Your task to perform on an android device: turn off location history Image 0: 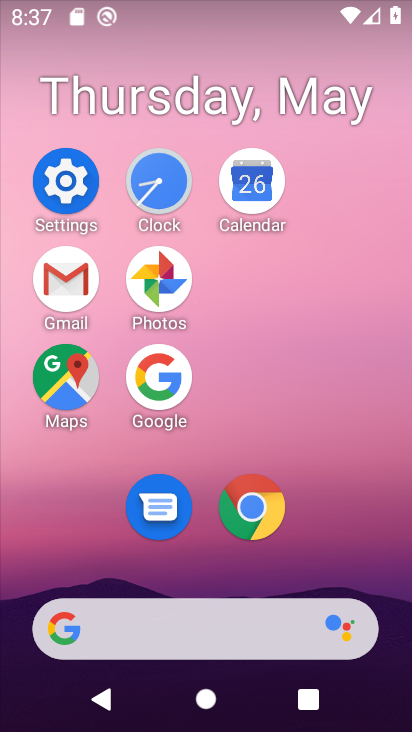
Step 0: click (66, 200)
Your task to perform on an android device: turn off location history Image 1: 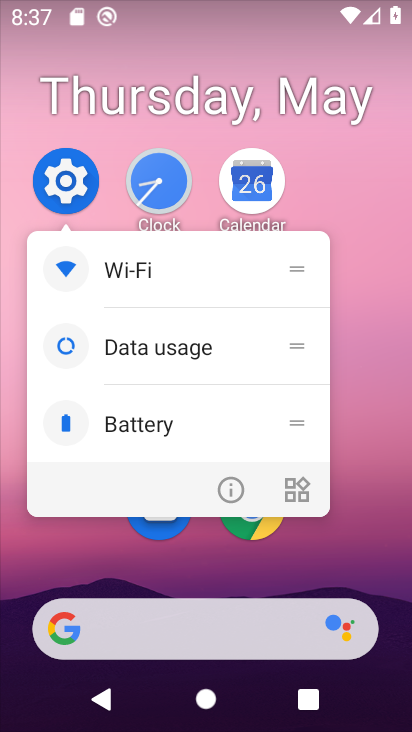
Step 1: click (66, 200)
Your task to perform on an android device: turn off location history Image 2: 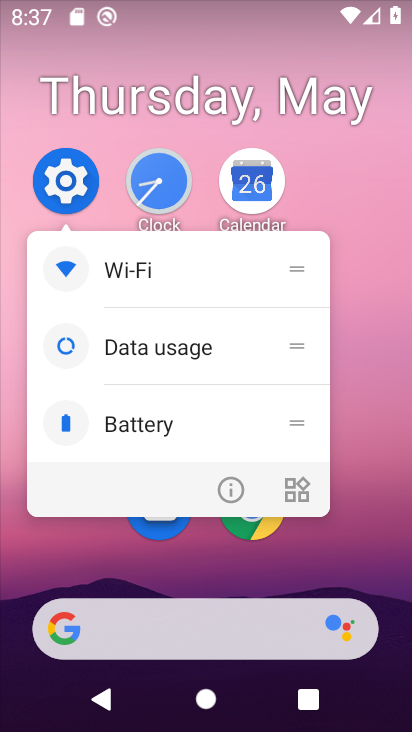
Step 2: click (66, 200)
Your task to perform on an android device: turn off location history Image 3: 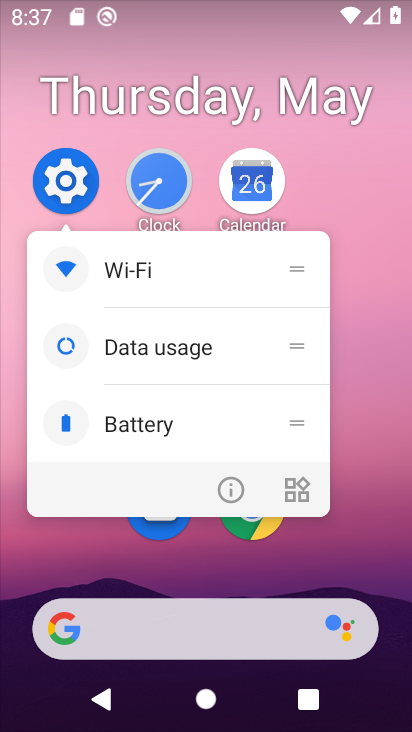
Step 3: click (75, 158)
Your task to perform on an android device: turn off location history Image 4: 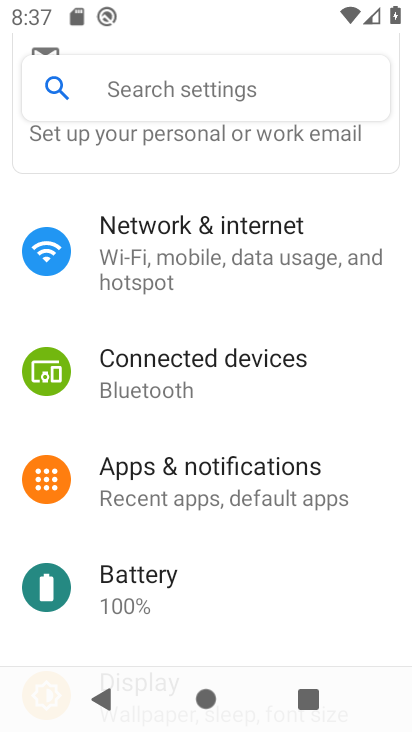
Step 4: drag from (275, 602) to (249, 229)
Your task to perform on an android device: turn off location history Image 5: 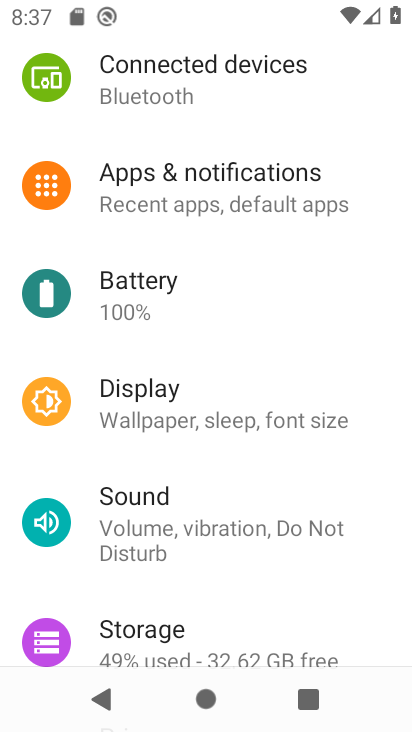
Step 5: drag from (211, 567) to (217, 221)
Your task to perform on an android device: turn off location history Image 6: 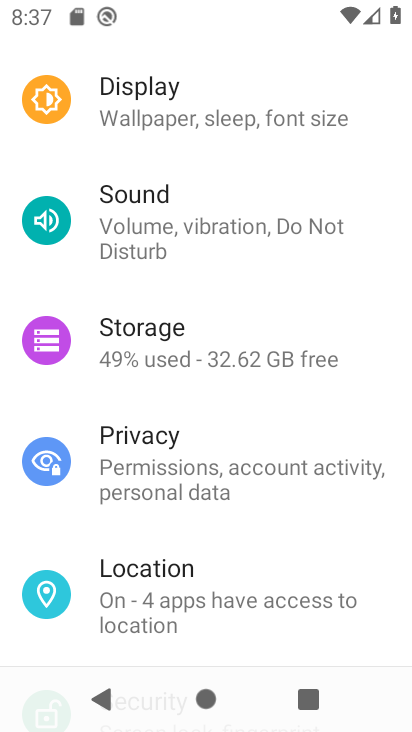
Step 6: click (208, 564)
Your task to perform on an android device: turn off location history Image 7: 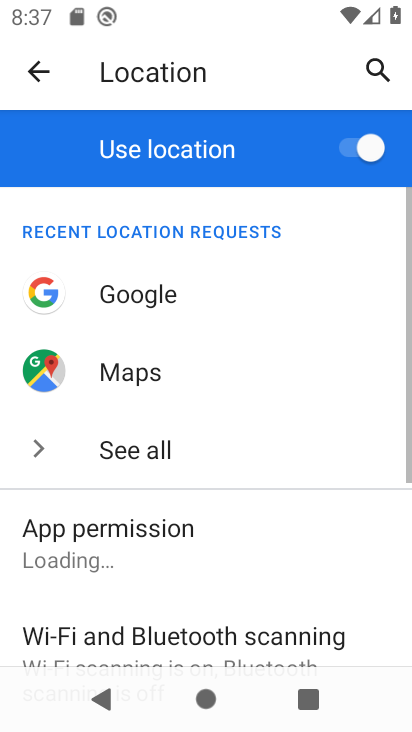
Step 7: drag from (208, 564) to (195, 245)
Your task to perform on an android device: turn off location history Image 8: 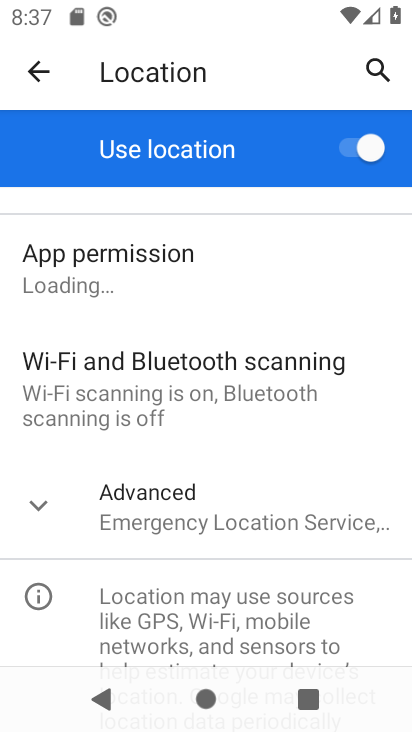
Step 8: click (218, 531)
Your task to perform on an android device: turn off location history Image 9: 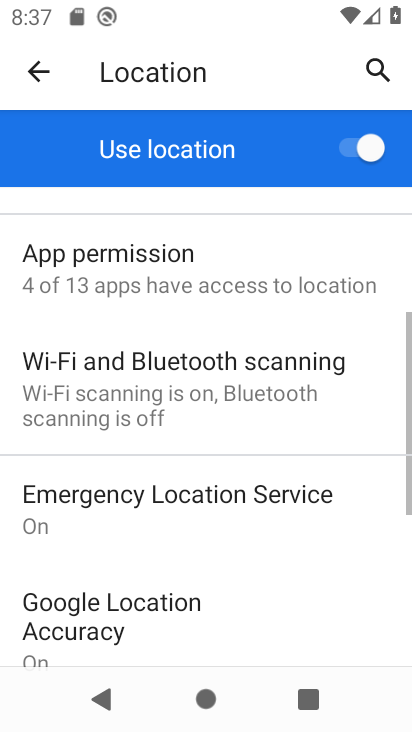
Step 9: drag from (218, 531) to (180, 265)
Your task to perform on an android device: turn off location history Image 10: 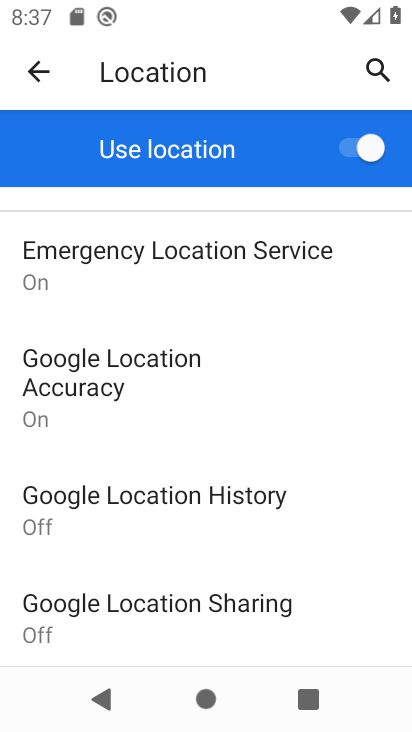
Step 10: click (306, 488)
Your task to perform on an android device: turn off location history Image 11: 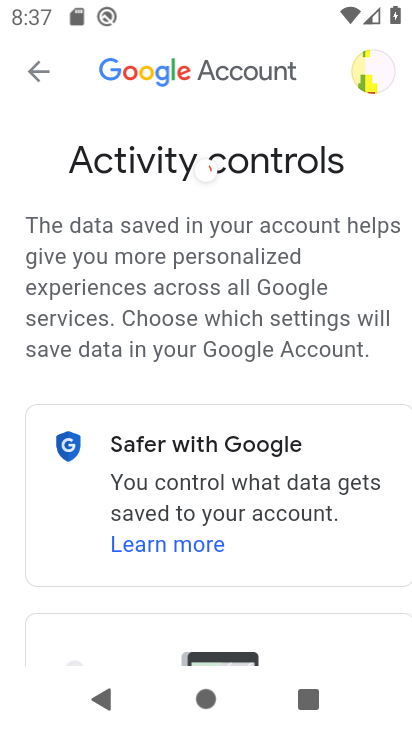
Step 11: drag from (306, 488) to (303, 141)
Your task to perform on an android device: turn off location history Image 12: 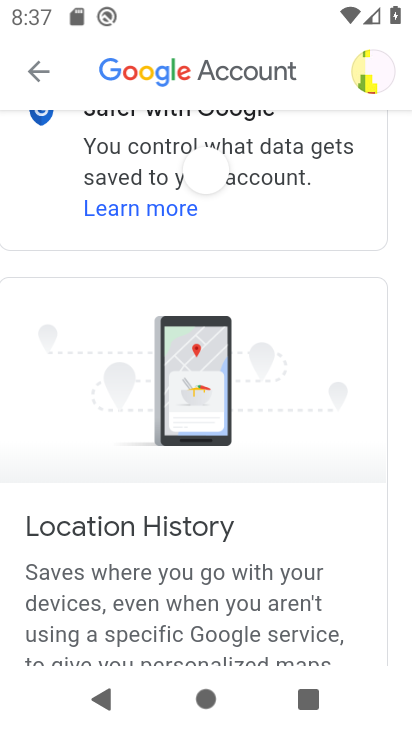
Step 12: drag from (260, 550) to (246, 59)
Your task to perform on an android device: turn off location history Image 13: 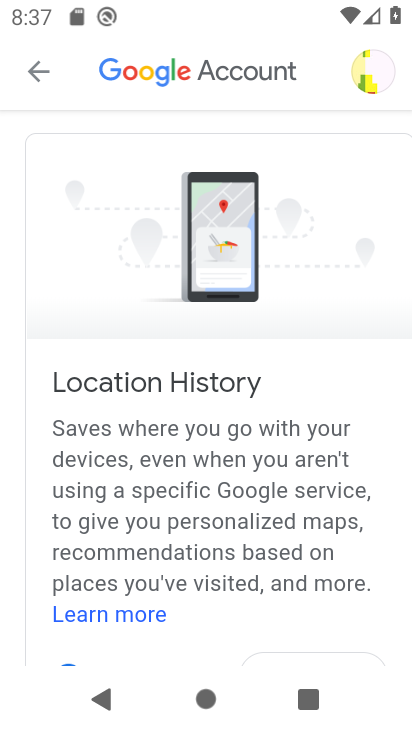
Step 13: drag from (253, 597) to (261, 153)
Your task to perform on an android device: turn off location history Image 14: 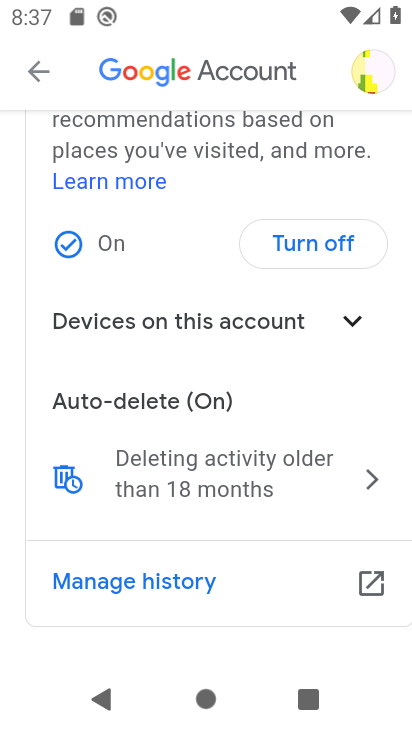
Step 14: click (359, 241)
Your task to perform on an android device: turn off location history Image 15: 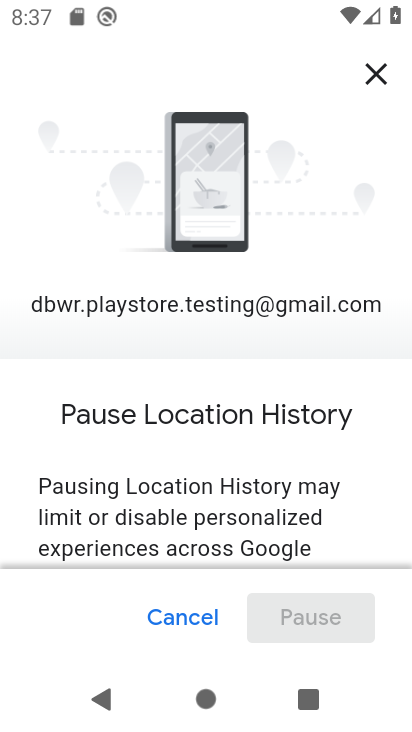
Step 15: drag from (272, 506) to (326, 105)
Your task to perform on an android device: turn off location history Image 16: 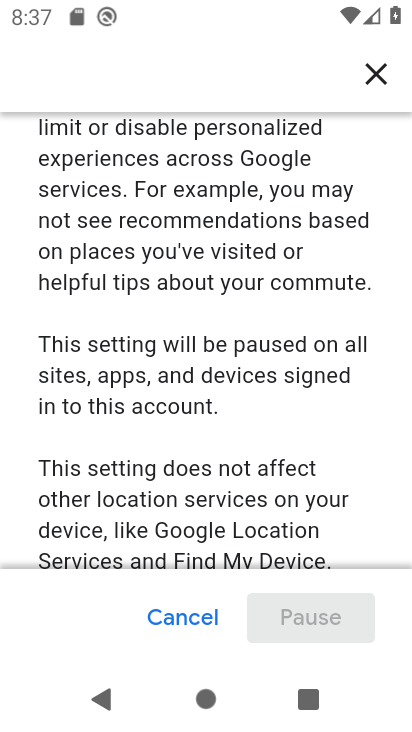
Step 16: drag from (269, 522) to (326, 90)
Your task to perform on an android device: turn off location history Image 17: 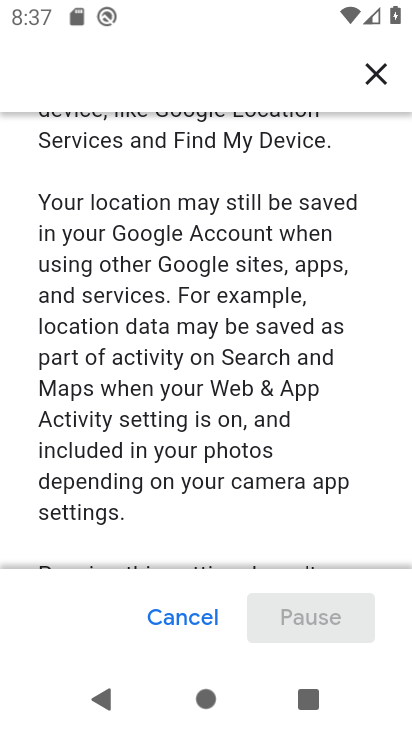
Step 17: drag from (310, 532) to (300, 76)
Your task to perform on an android device: turn off location history Image 18: 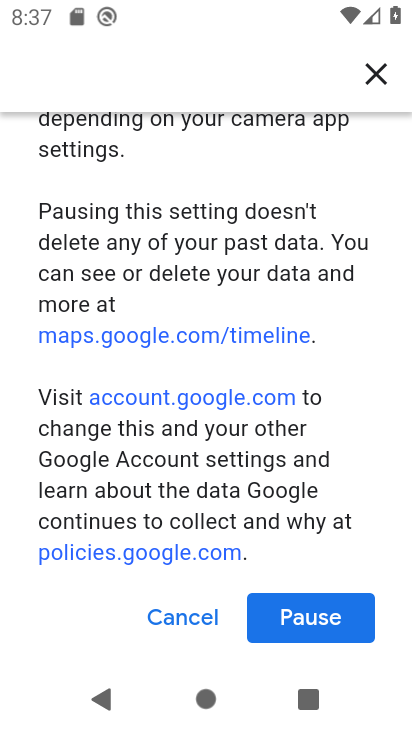
Step 18: click (337, 604)
Your task to perform on an android device: turn off location history Image 19: 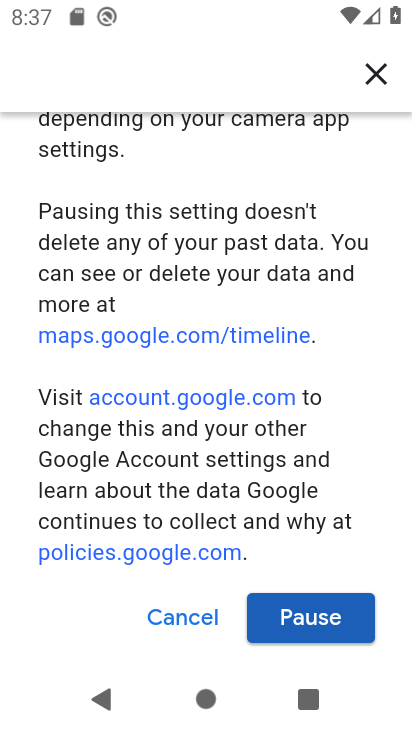
Step 19: click (300, 633)
Your task to perform on an android device: turn off location history Image 20: 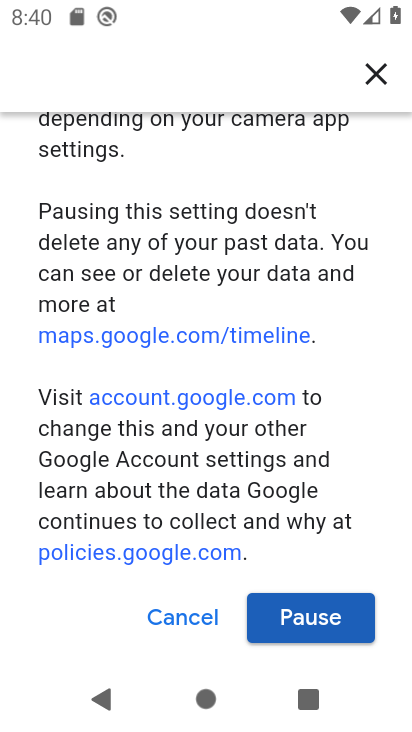
Step 20: click (331, 618)
Your task to perform on an android device: turn off location history Image 21: 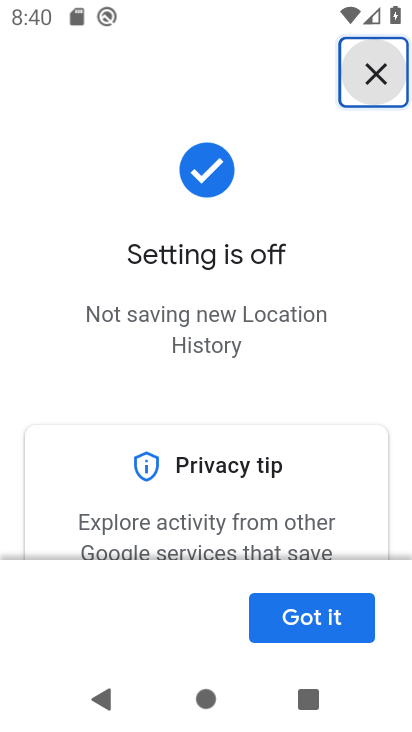
Step 21: click (331, 618)
Your task to perform on an android device: turn off location history Image 22: 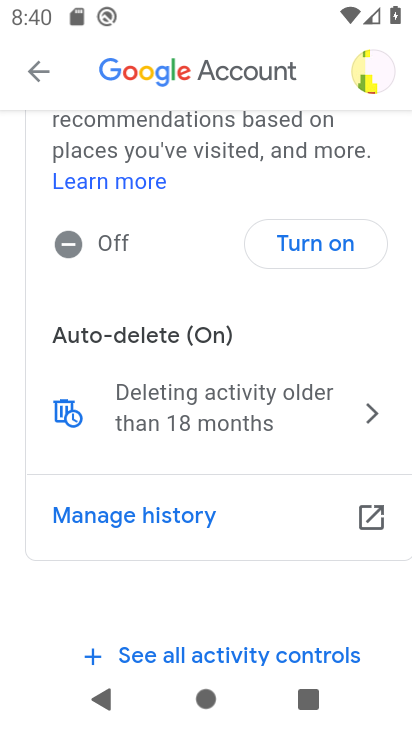
Step 22: task complete